Your task to perform on an android device: Go to notification settings Image 0: 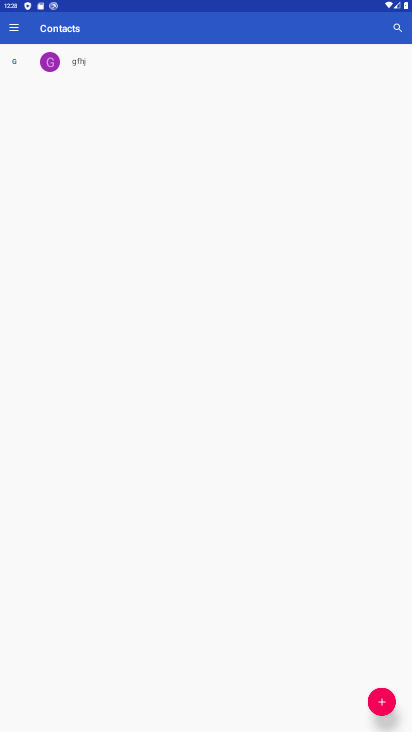
Step 0: drag from (215, 681) to (208, 161)
Your task to perform on an android device: Go to notification settings Image 1: 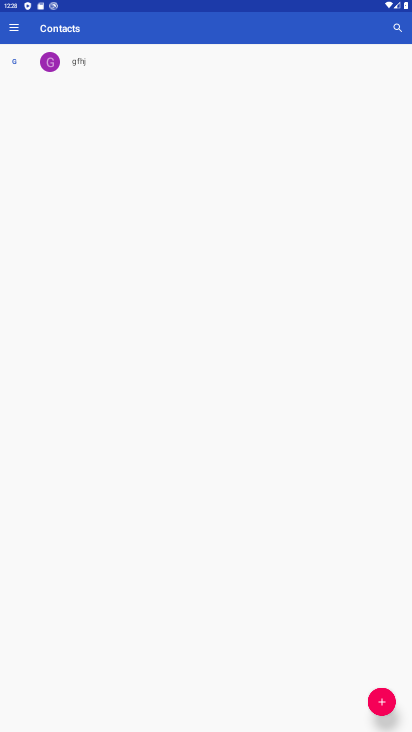
Step 1: press home button
Your task to perform on an android device: Go to notification settings Image 2: 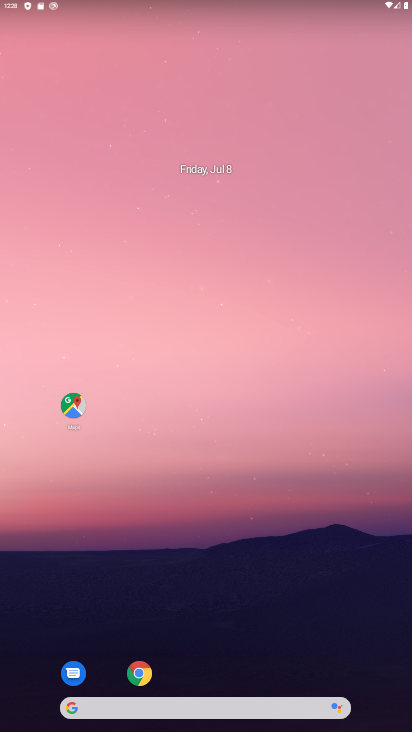
Step 2: drag from (211, 678) to (213, 83)
Your task to perform on an android device: Go to notification settings Image 3: 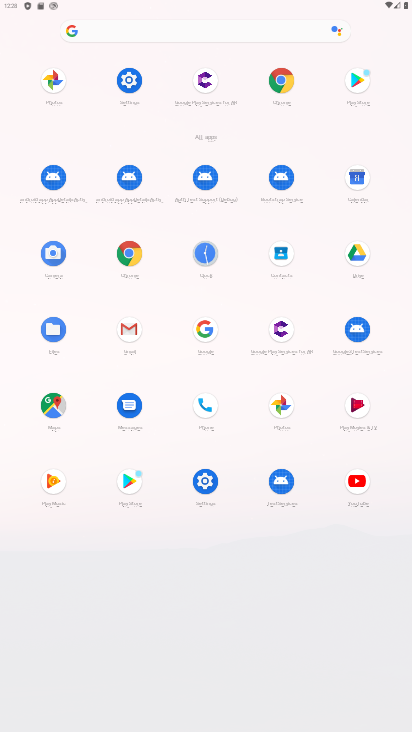
Step 3: click (203, 480)
Your task to perform on an android device: Go to notification settings Image 4: 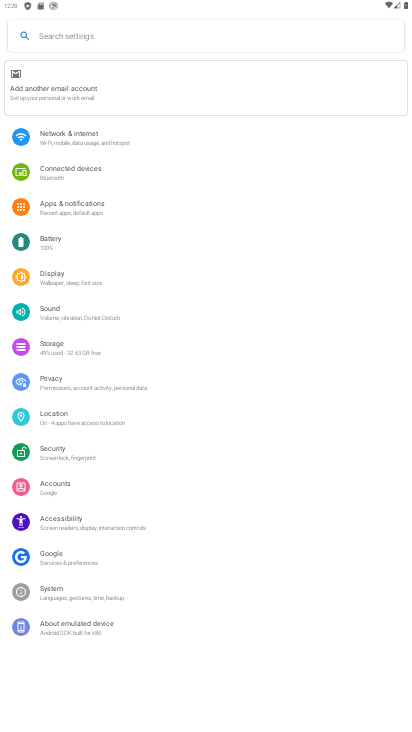
Step 4: click (106, 207)
Your task to perform on an android device: Go to notification settings Image 5: 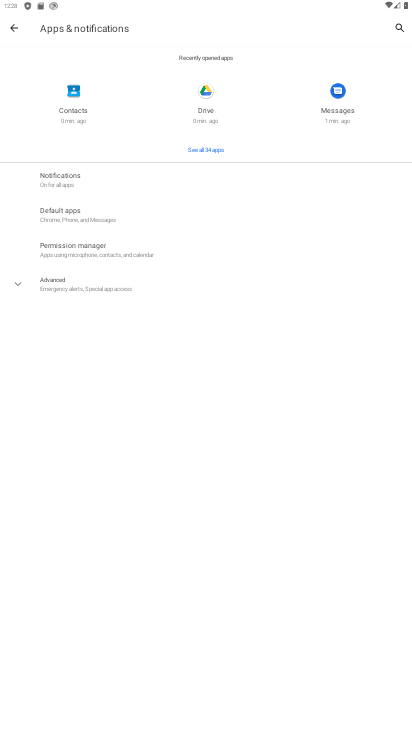
Step 5: click (97, 177)
Your task to perform on an android device: Go to notification settings Image 6: 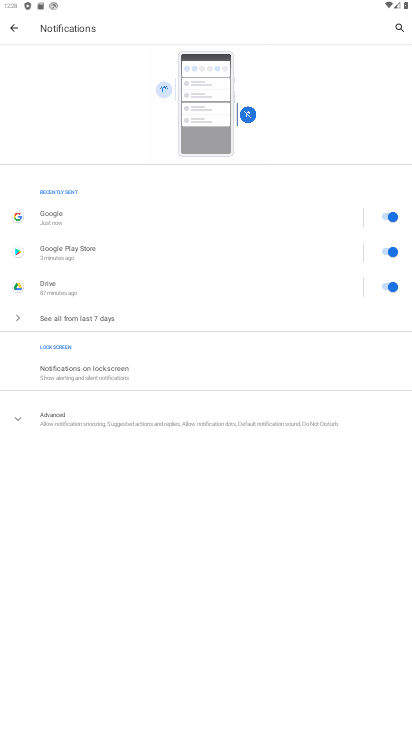
Step 6: click (18, 414)
Your task to perform on an android device: Go to notification settings Image 7: 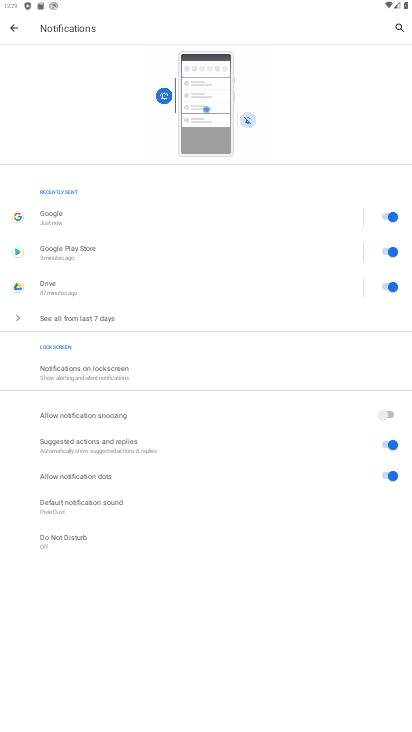
Step 7: task complete